Your task to perform on an android device: move an email to a new category in the gmail app Image 0: 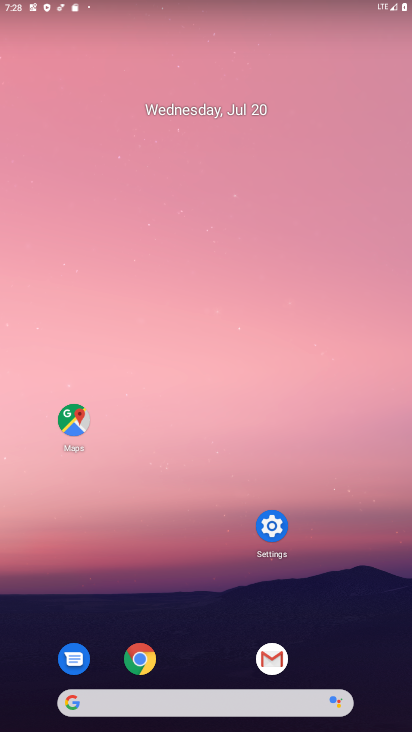
Step 0: click (279, 654)
Your task to perform on an android device: move an email to a new category in the gmail app Image 1: 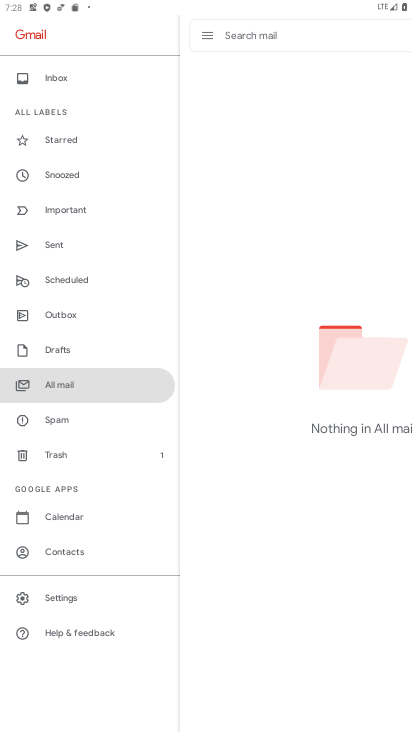
Step 1: click (69, 601)
Your task to perform on an android device: move an email to a new category in the gmail app Image 2: 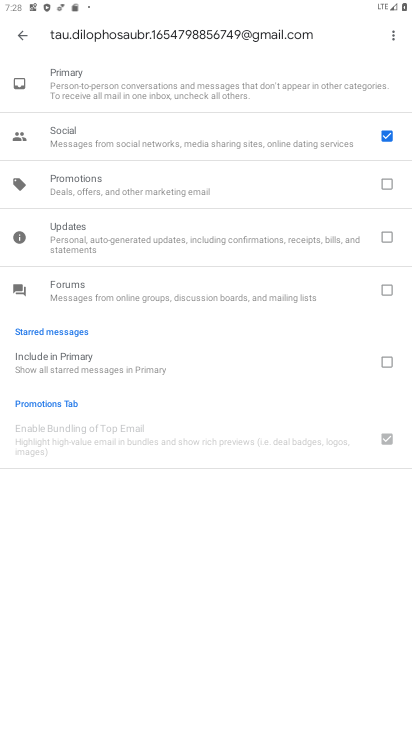
Step 2: click (391, 189)
Your task to perform on an android device: move an email to a new category in the gmail app Image 3: 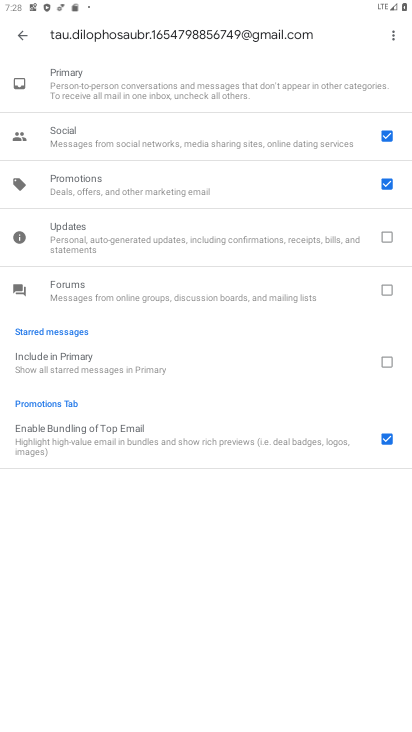
Step 3: task complete